Your task to perform on an android device: turn on showing notifications on the lock screen Image 0: 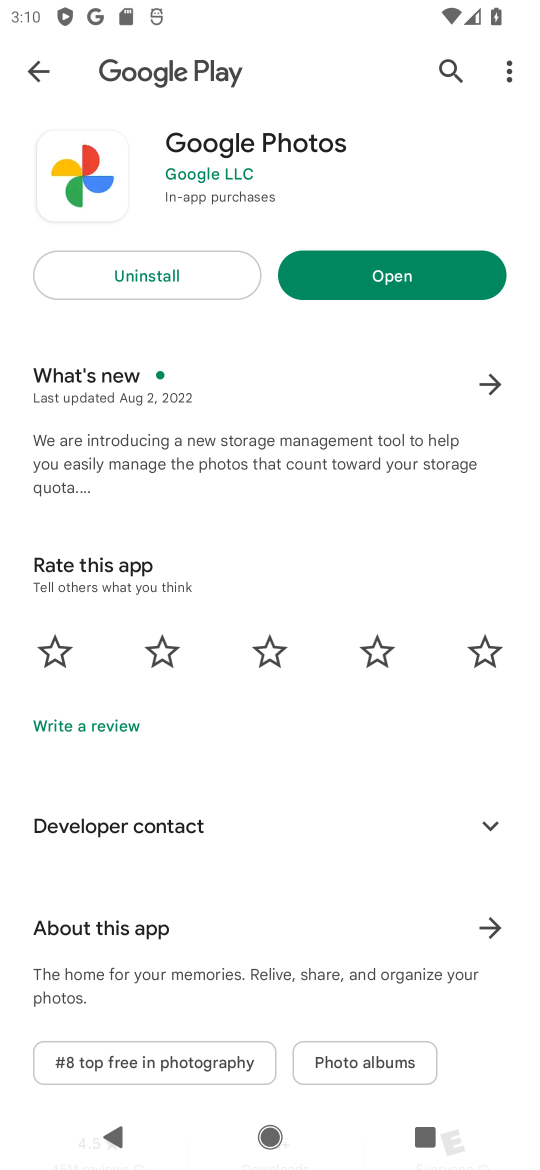
Step 0: press home button
Your task to perform on an android device: turn on showing notifications on the lock screen Image 1: 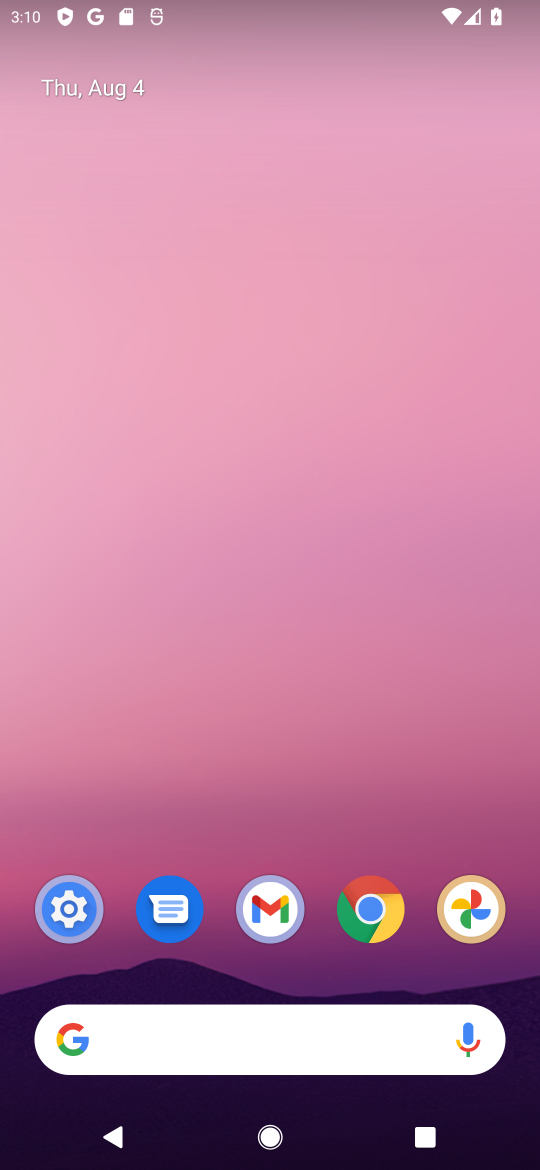
Step 1: click (63, 904)
Your task to perform on an android device: turn on showing notifications on the lock screen Image 2: 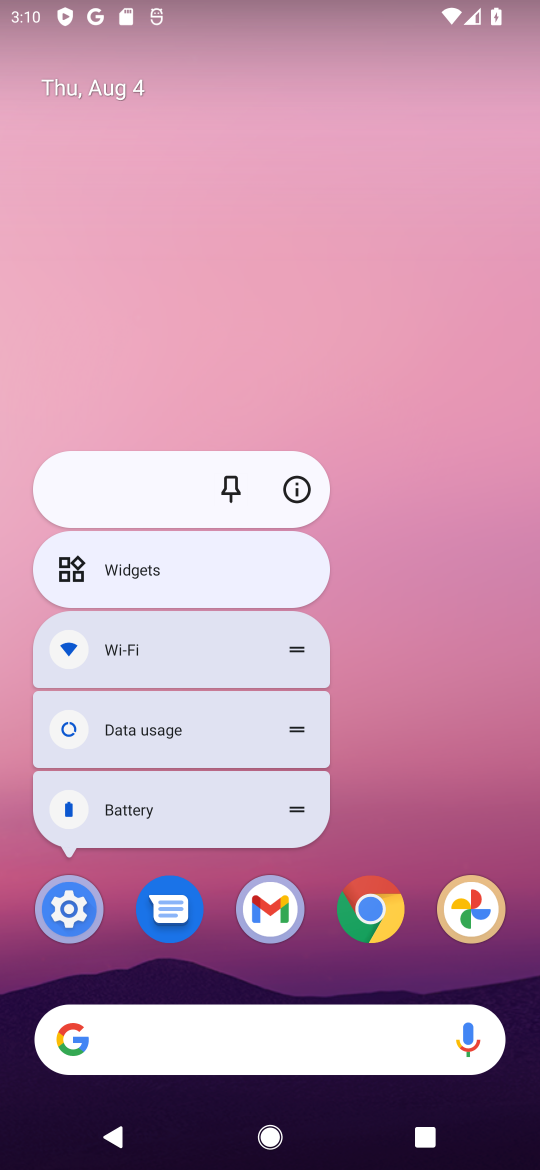
Step 2: click (63, 904)
Your task to perform on an android device: turn on showing notifications on the lock screen Image 3: 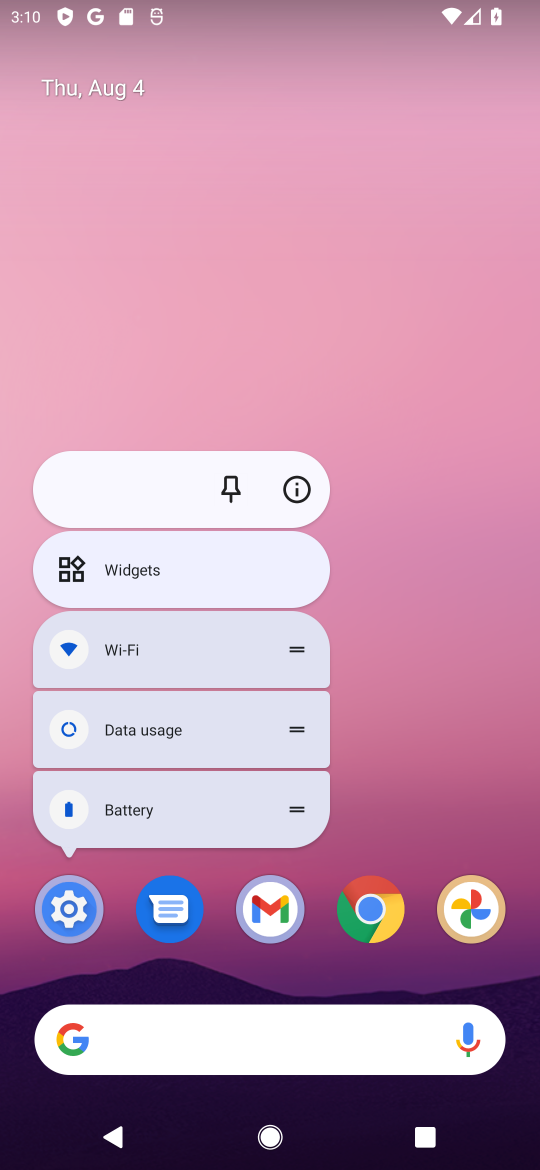
Step 3: click (63, 904)
Your task to perform on an android device: turn on showing notifications on the lock screen Image 4: 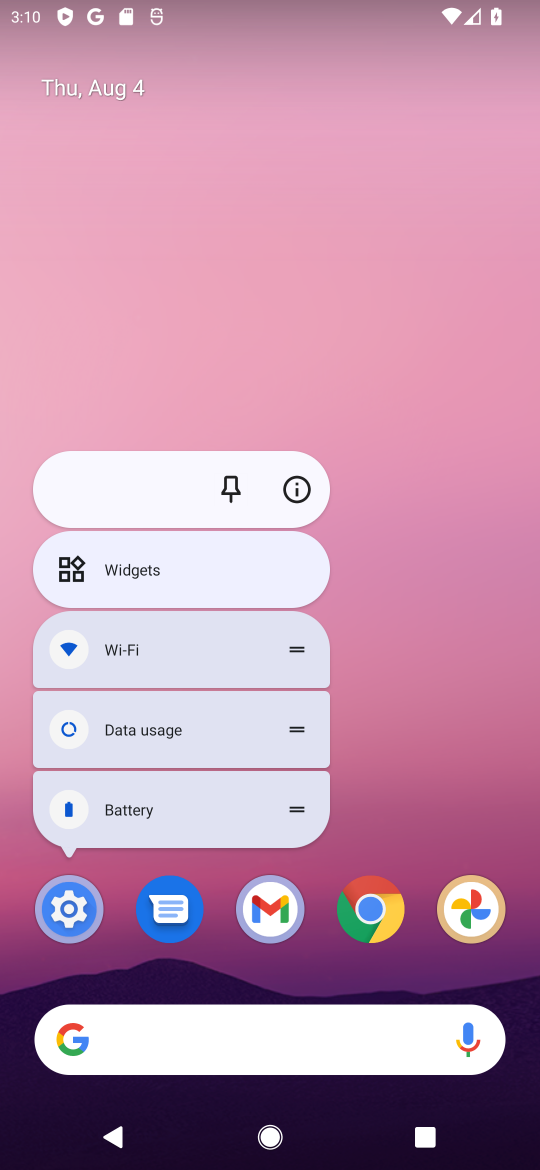
Step 4: click (63, 904)
Your task to perform on an android device: turn on showing notifications on the lock screen Image 5: 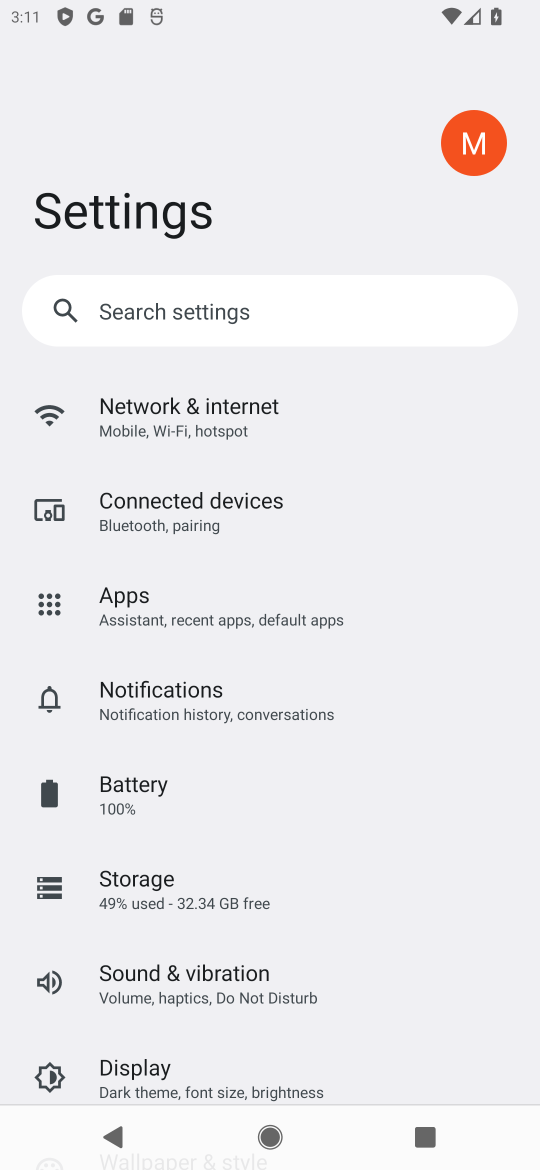
Step 5: click (194, 703)
Your task to perform on an android device: turn on showing notifications on the lock screen Image 6: 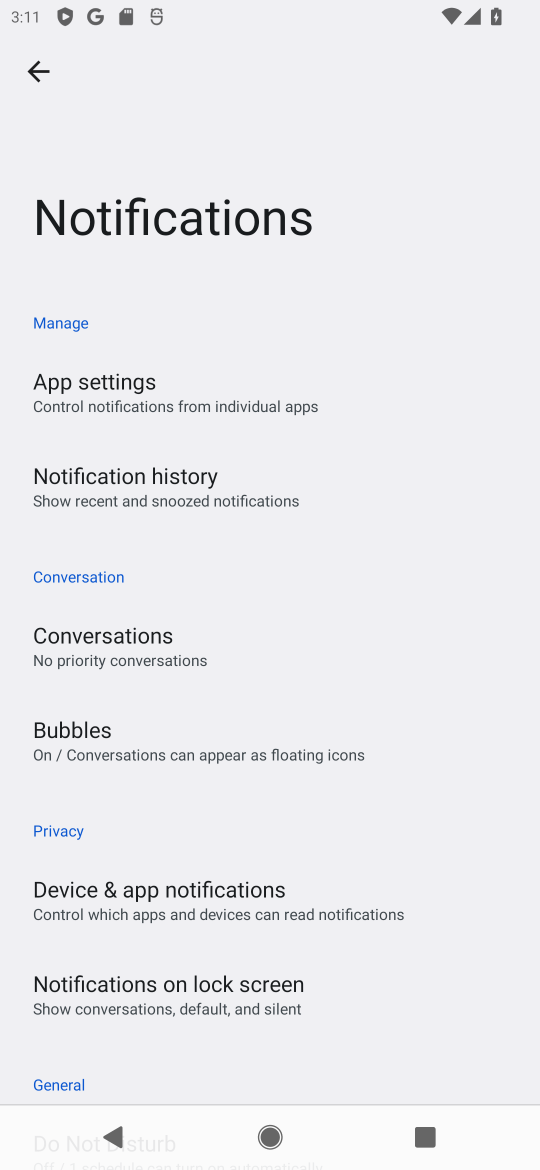
Step 6: drag from (351, 948) to (462, 478)
Your task to perform on an android device: turn on showing notifications on the lock screen Image 7: 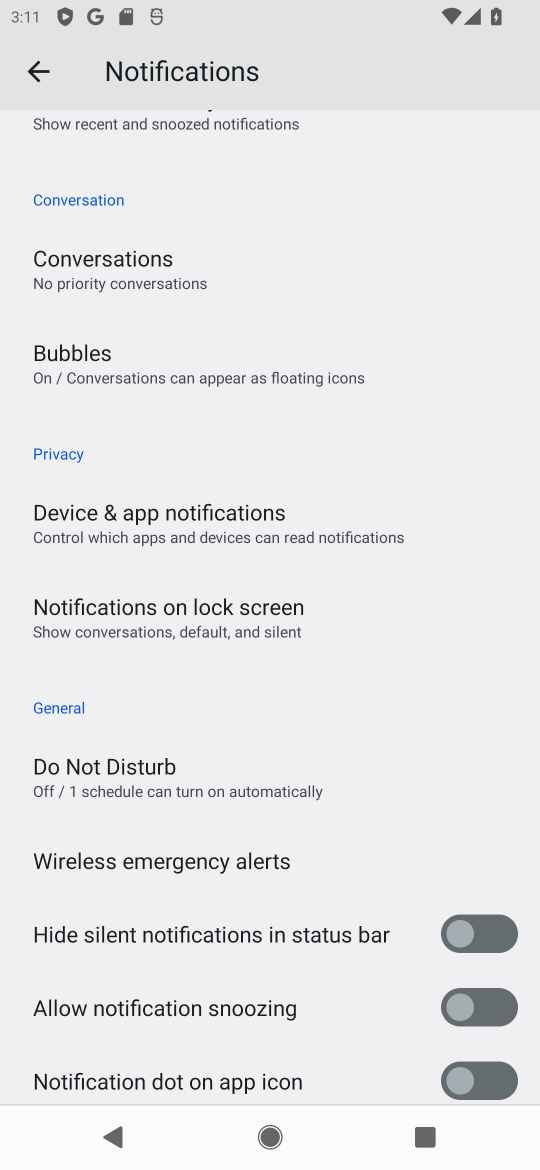
Step 7: click (246, 621)
Your task to perform on an android device: turn on showing notifications on the lock screen Image 8: 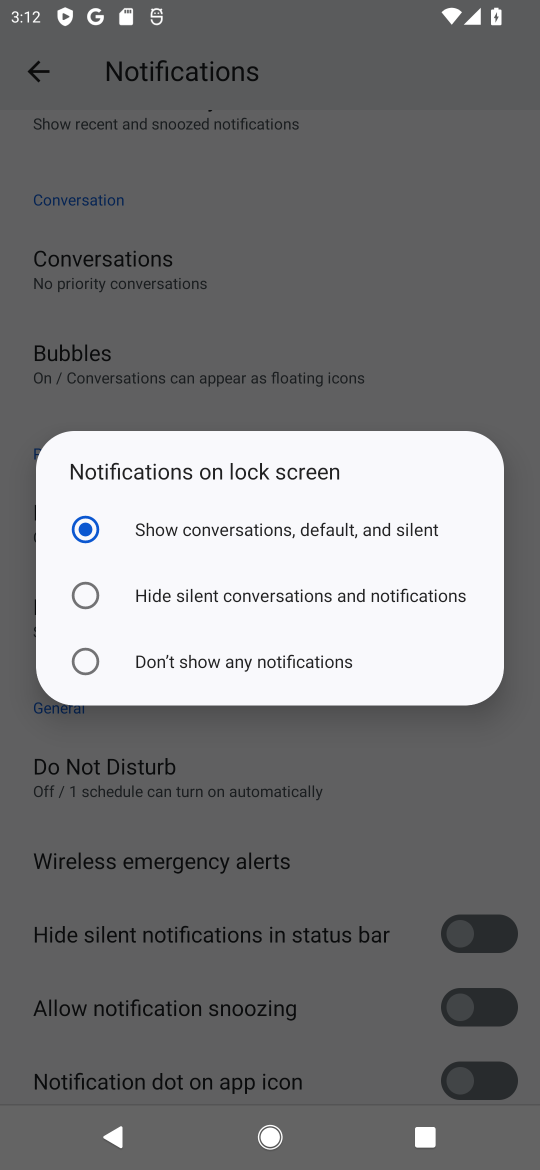
Step 8: task complete